Your task to perform on an android device: turn on wifi Image 0: 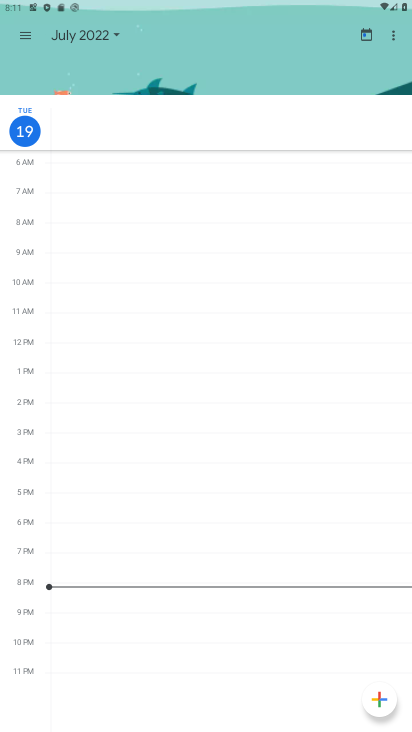
Step 0: press home button
Your task to perform on an android device: turn on wifi Image 1: 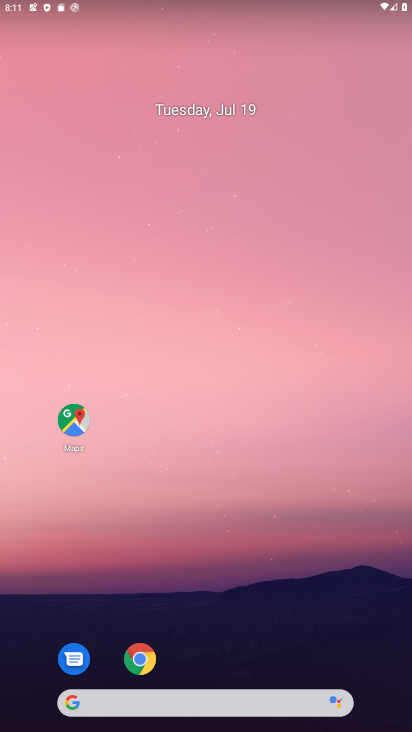
Step 1: drag from (170, 700) to (236, 221)
Your task to perform on an android device: turn on wifi Image 2: 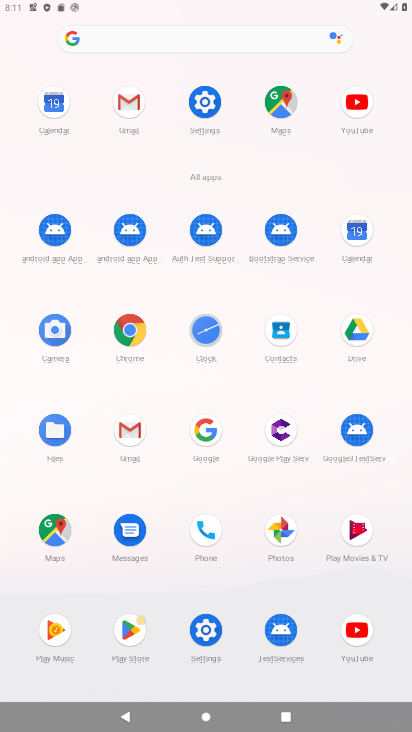
Step 2: click (208, 97)
Your task to perform on an android device: turn on wifi Image 3: 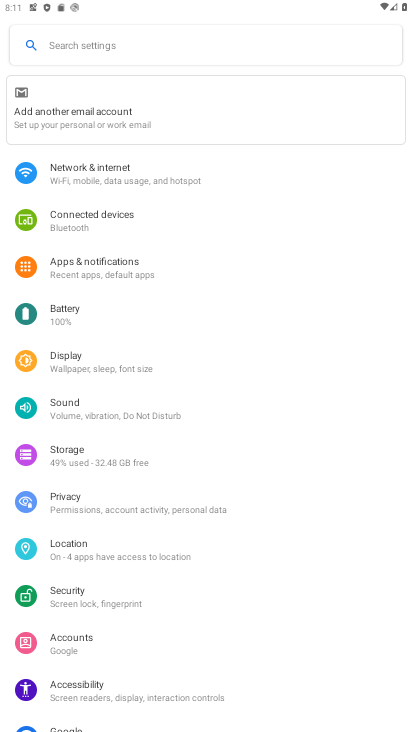
Step 3: click (62, 170)
Your task to perform on an android device: turn on wifi Image 4: 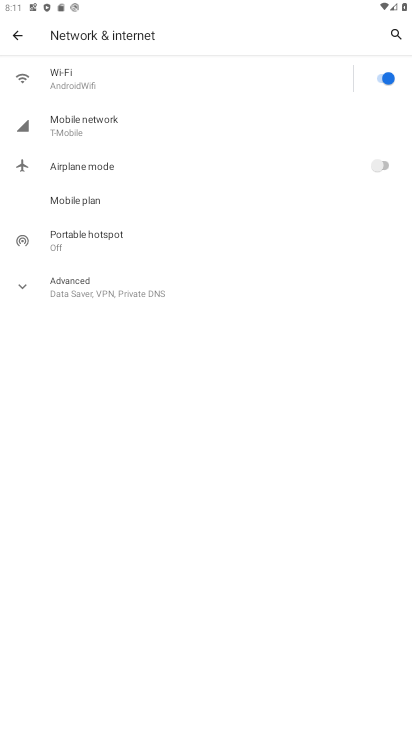
Step 4: task complete